Your task to perform on an android device: change timer sound Image 0: 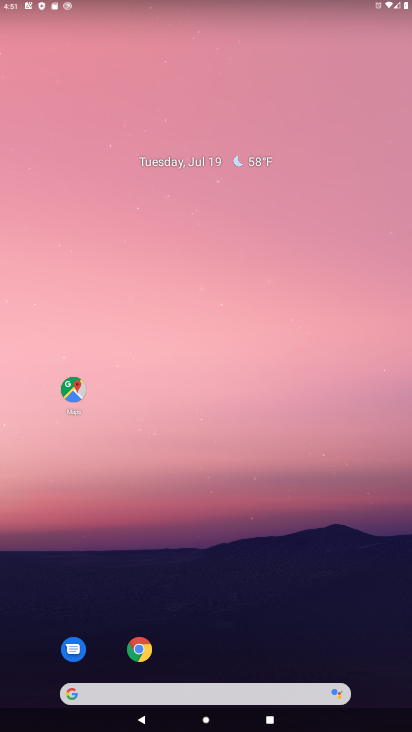
Step 0: drag from (190, 592) to (237, 192)
Your task to perform on an android device: change timer sound Image 1: 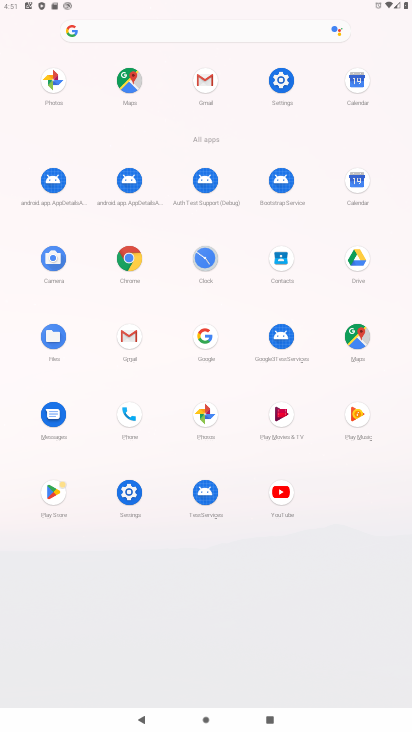
Step 1: click (280, 82)
Your task to perform on an android device: change timer sound Image 2: 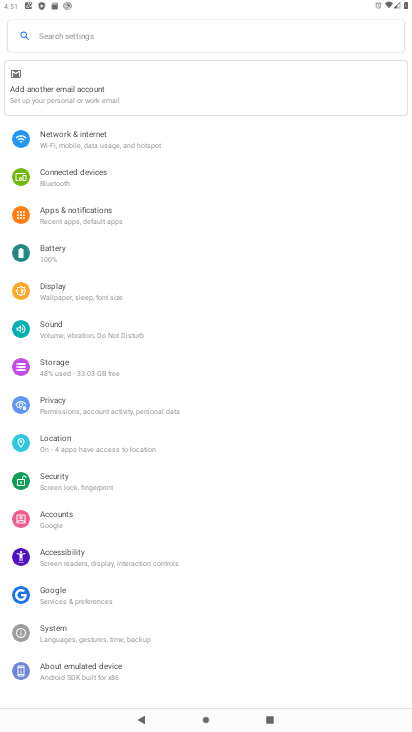
Step 2: click (61, 325)
Your task to perform on an android device: change timer sound Image 3: 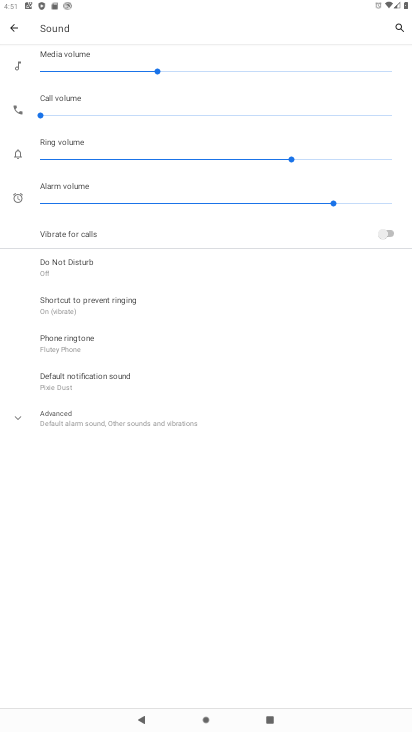
Step 3: task complete